Your task to perform on an android device: open the mobile data screen to see how much data has been used Image 0: 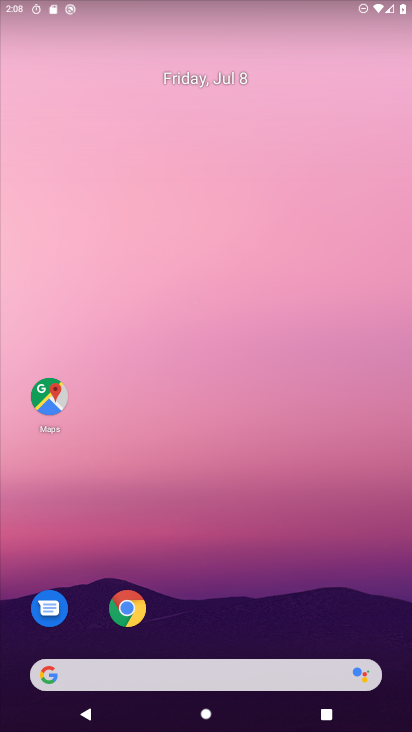
Step 0: drag from (239, 715) to (214, 65)
Your task to perform on an android device: open the mobile data screen to see how much data has been used Image 1: 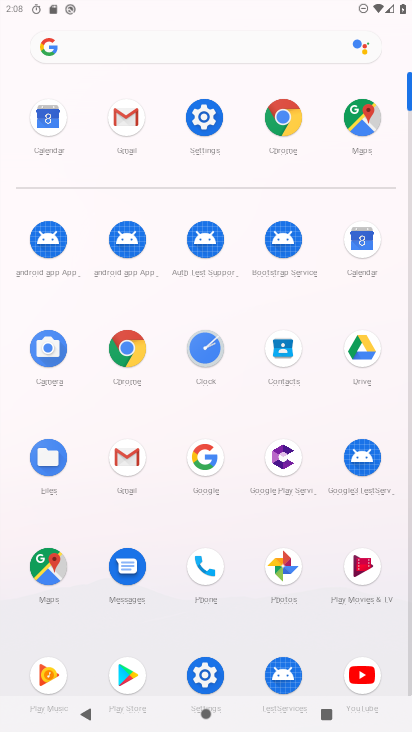
Step 1: click (202, 124)
Your task to perform on an android device: open the mobile data screen to see how much data has been used Image 2: 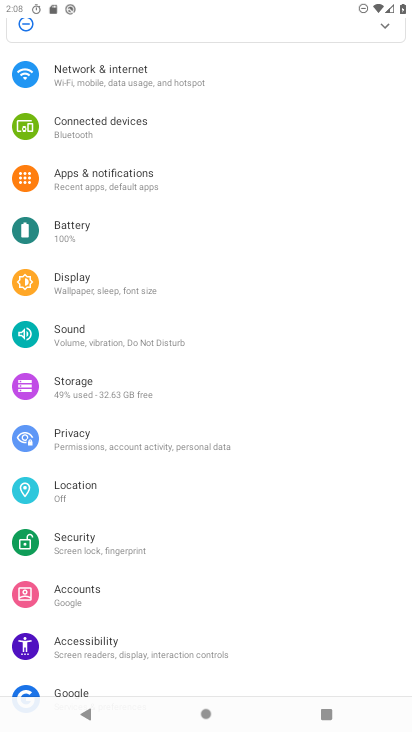
Step 2: click (87, 78)
Your task to perform on an android device: open the mobile data screen to see how much data has been used Image 3: 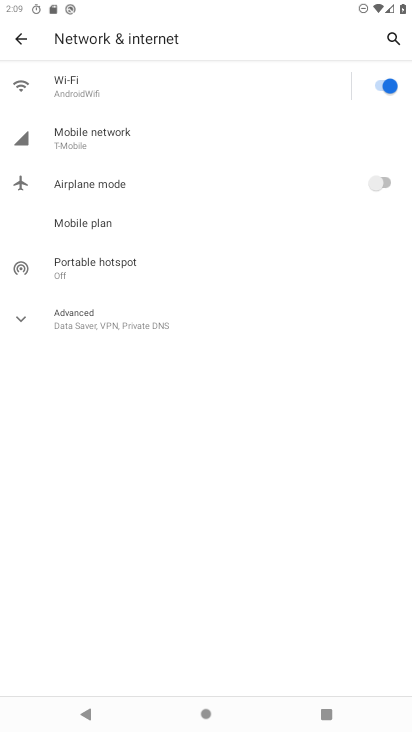
Step 3: click (76, 134)
Your task to perform on an android device: open the mobile data screen to see how much data has been used Image 4: 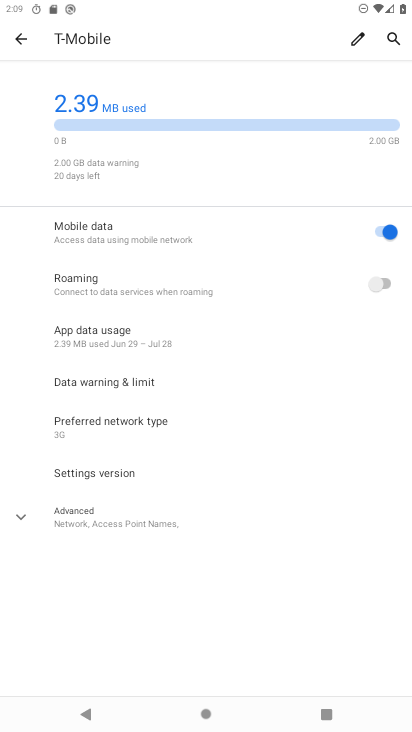
Step 4: click (94, 341)
Your task to perform on an android device: open the mobile data screen to see how much data has been used Image 5: 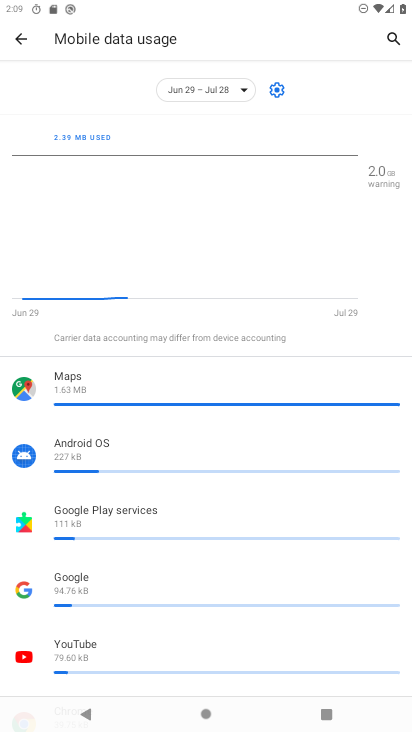
Step 5: task complete